Your task to perform on an android device: Is it going to rain tomorrow? Image 0: 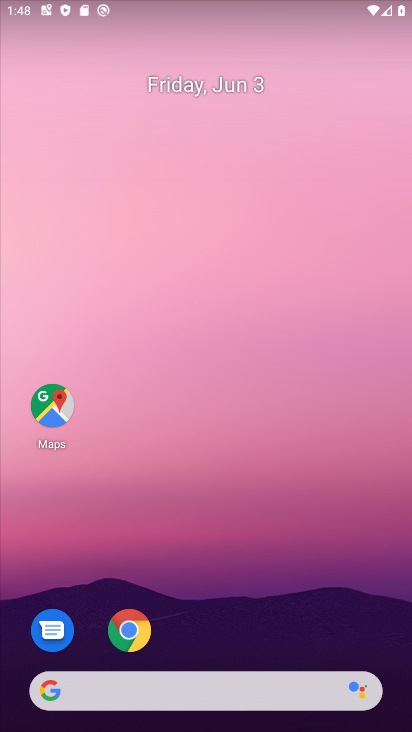
Step 0: drag from (237, 728) to (209, 200)
Your task to perform on an android device: Is it going to rain tomorrow? Image 1: 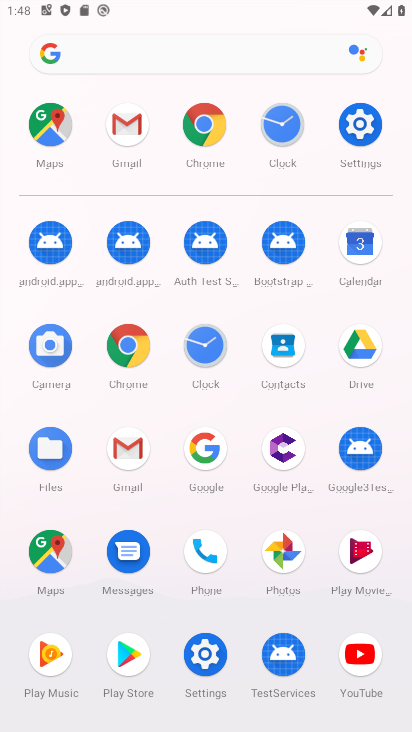
Step 1: click (206, 443)
Your task to perform on an android device: Is it going to rain tomorrow? Image 2: 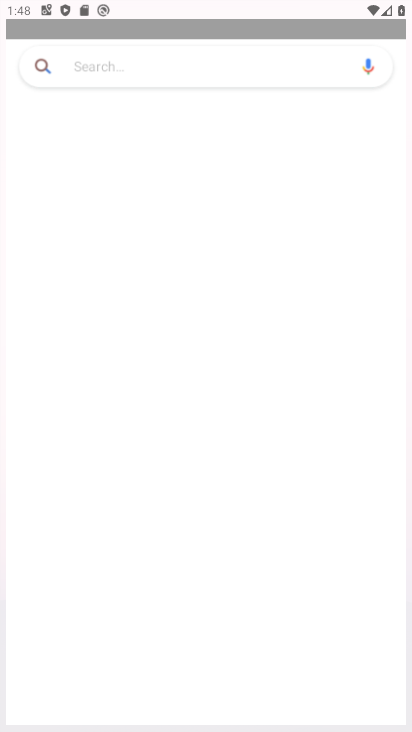
Step 2: click (205, 443)
Your task to perform on an android device: Is it going to rain tomorrow? Image 3: 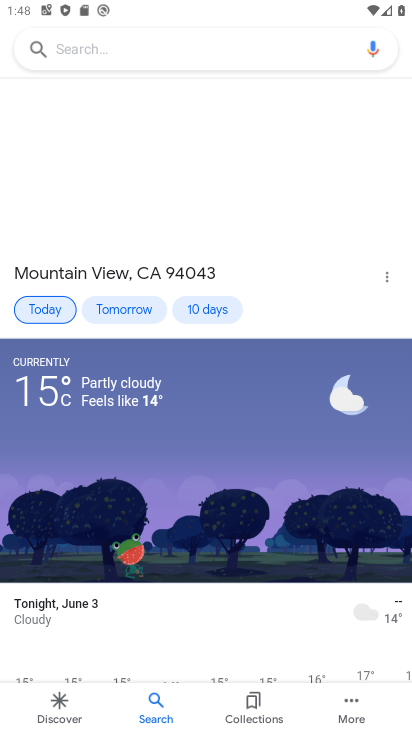
Step 3: click (116, 306)
Your task to perform on an android device: Is it going to rain tomorrow? Image 4: 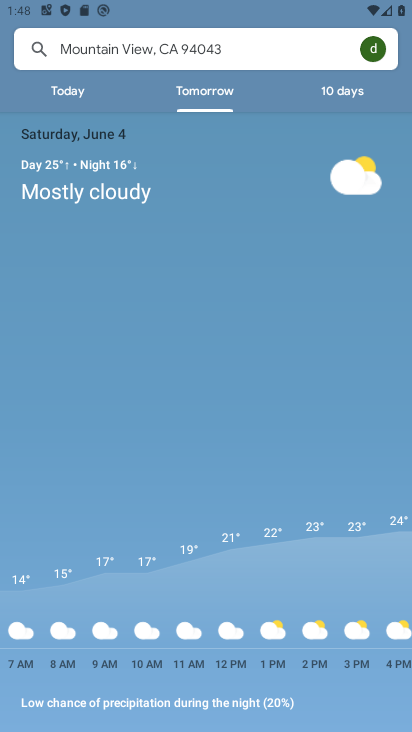
Step 4: task complete